Your task to perform on an android device: uninstall "Upside-Cash back on gas & food" Image 0: 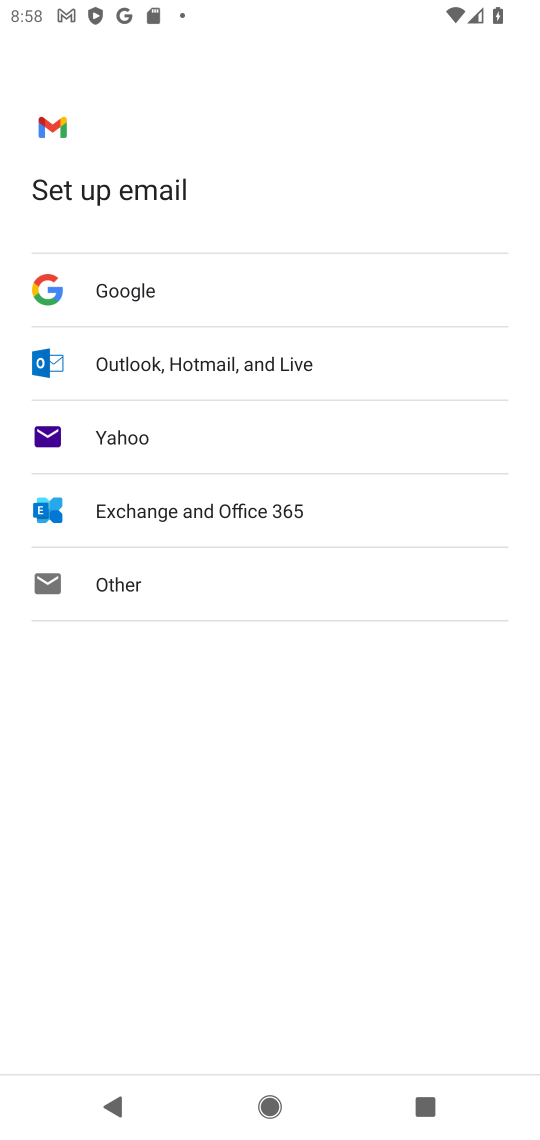
Step 0: press home button
Your task to perform on an android device: uninstall "Upside-Cash back on gas & food" Image 1: 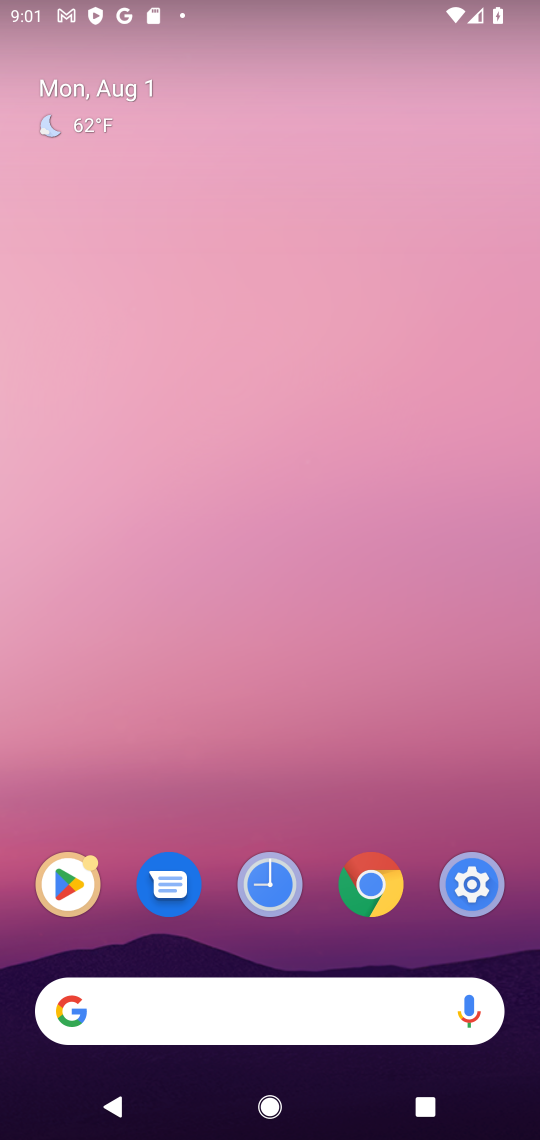
Step 1: click (90, 880)
Your task to perform on an android device: uninstall "Upside-Cash back on gas & food" Image 2: 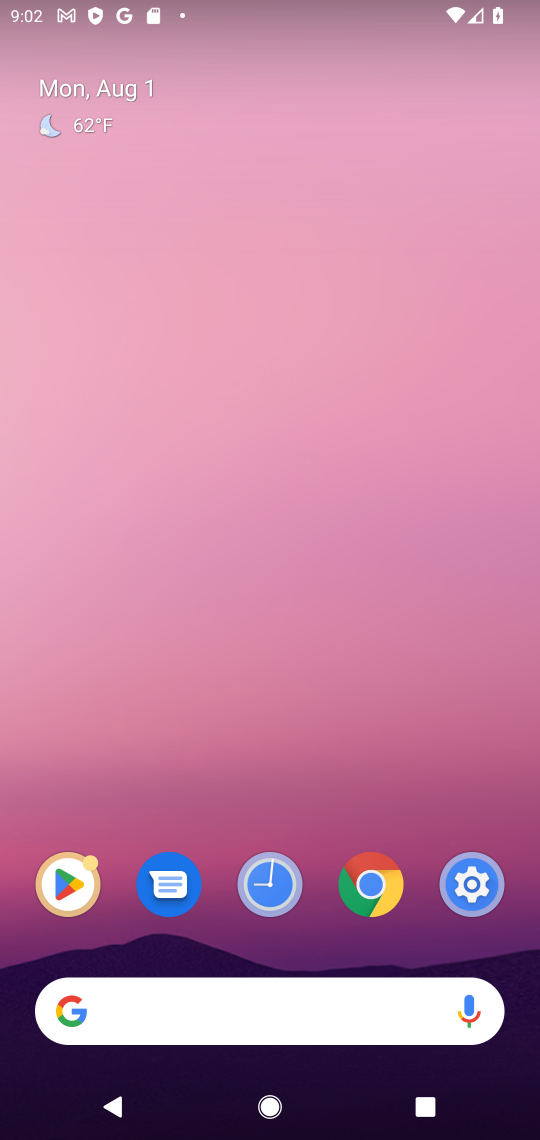
Step 2: click (72, 887)
Your task to perform on an android device: uninstall "Upside-Cash back on gas & food" Image 3: 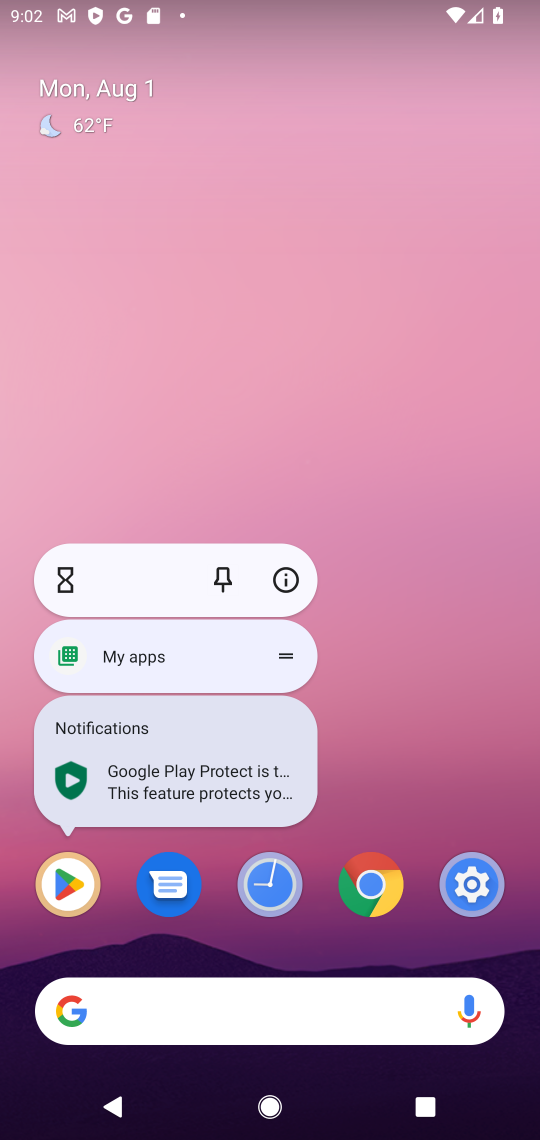
Step 3: click (70, 886)
Your task to perform on an android device: uninstall "Upside-Cash back on gas & food" Image 4: 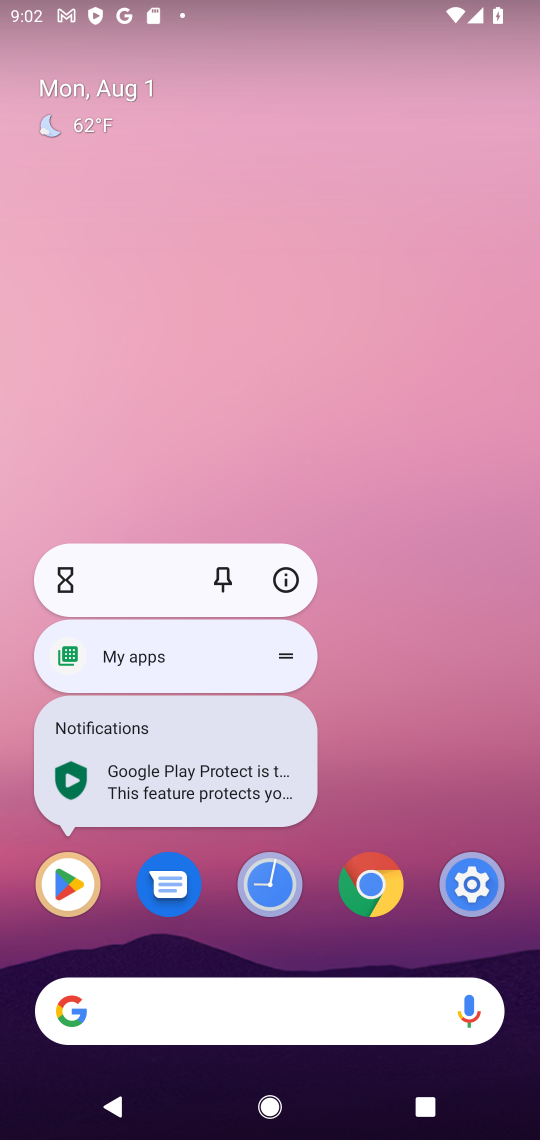
Step 4: click (371, 870)
Your task to perform on an android device: uninstall "Upside-Cash back on gas & food" Image 5: 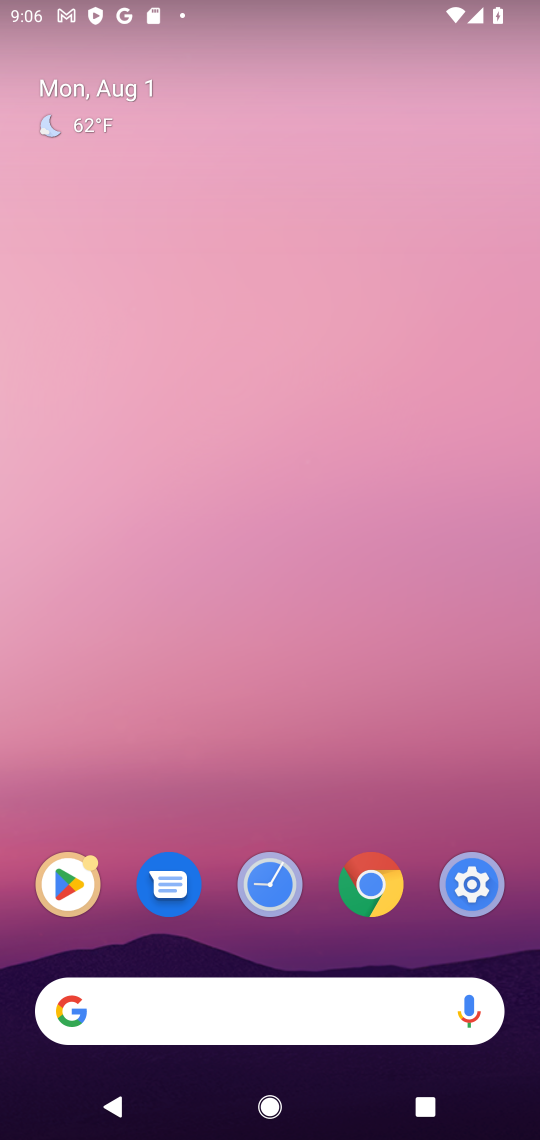
Step 5: click (56, 873)
Your task to perform on an android device: uninstall "Upside-Cash back on gas & food" Image 6: 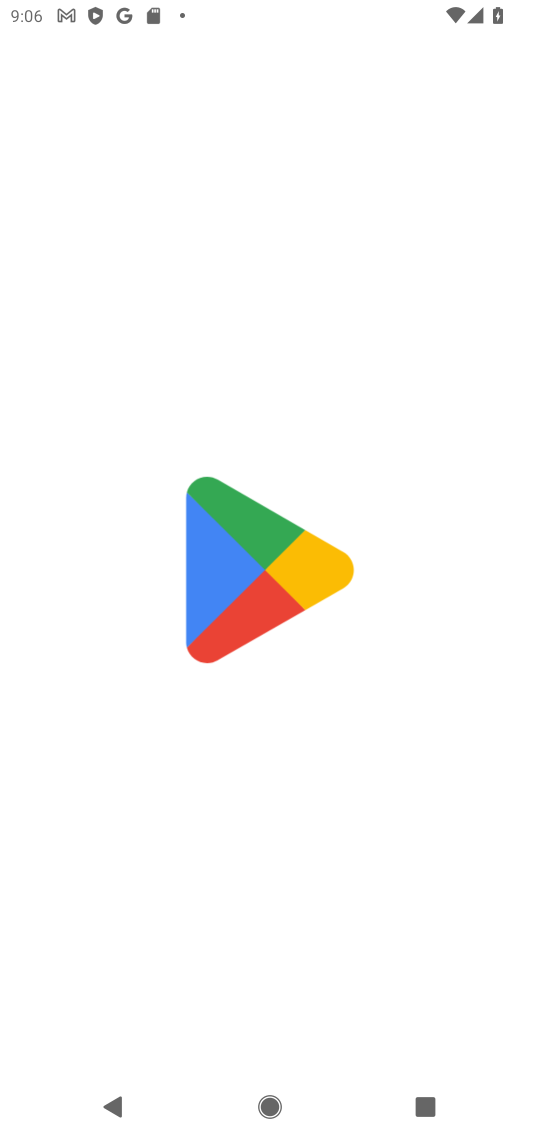
Step 6: click (56, 873)
Your task to perform on an android device: uninstall "Upside-Cash back on gas & food" Image 7: 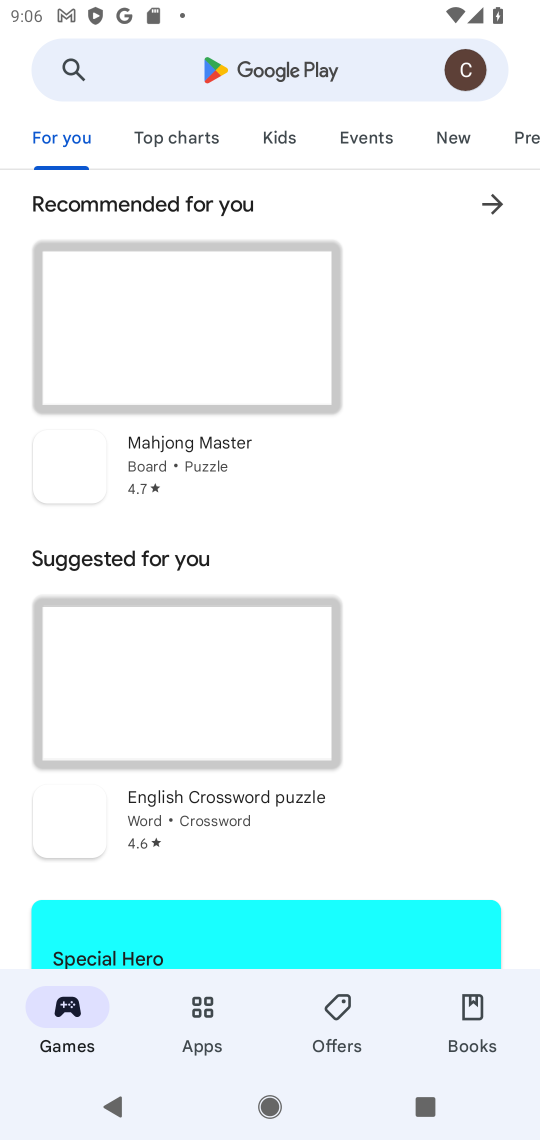
Step 7: click (297, 67)
Your task to perform on an android device: uninstall "Upside-Cash back on gas & food" Image 8: 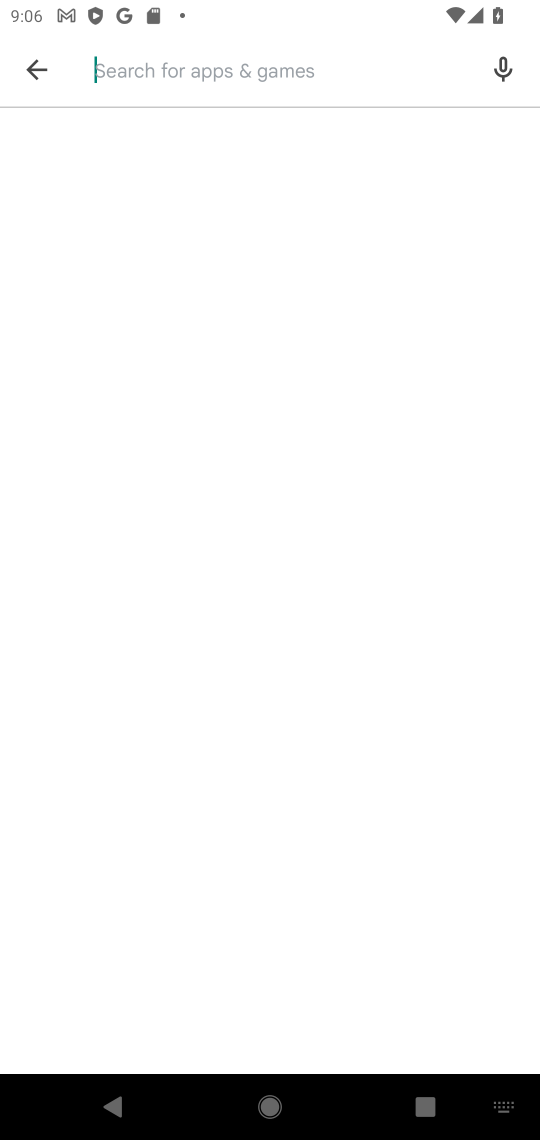
Step 8: type "upside  cash "
Your task to perform on an android device: uninstall "Upside-Cash back on gas & food" Image 9: 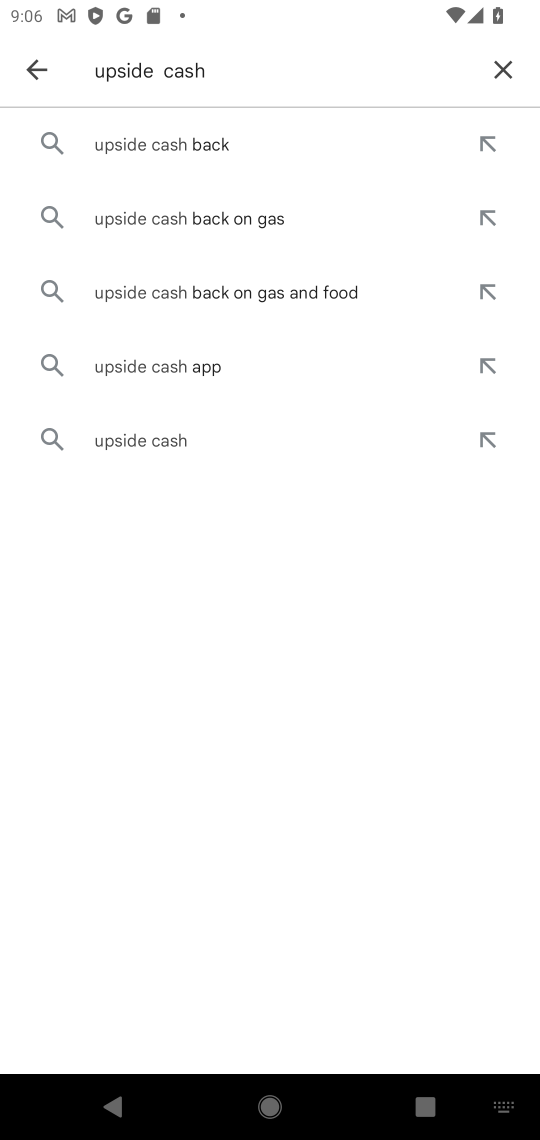
Step 9: click (253, 296)
Your task to perform on an android device: uninstall "Upside-Cash back on gas & food" Image 10: 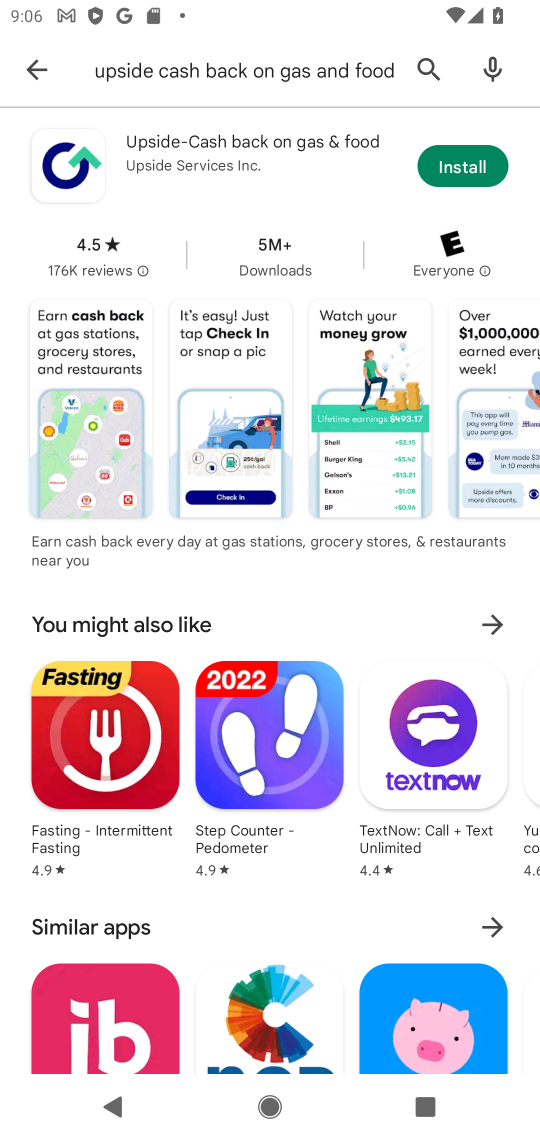
Step 10: click (189, 136)
Your task to perform on an android device: uninstall "Upside-Cash back on gas & food" Image 11: 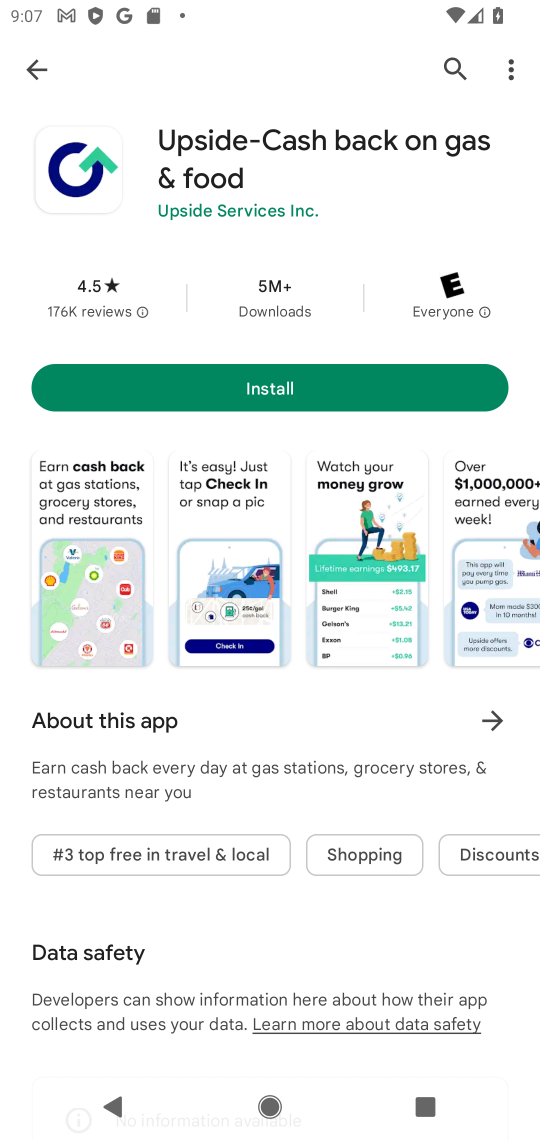
Step 11: task complete